Your task to perform on an android device: turn on notifications settings in the gmail app Image 0: 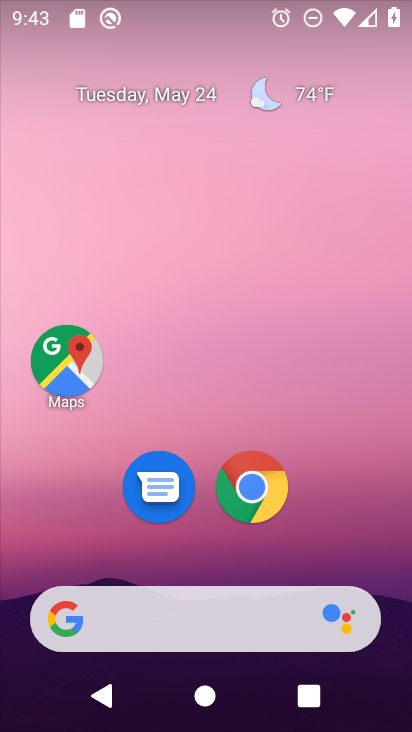
Step 0: drag from (346, 571) to (378, 13)
Your task to perform on an android device: turn on notifications settings in the gmail app Image 1: 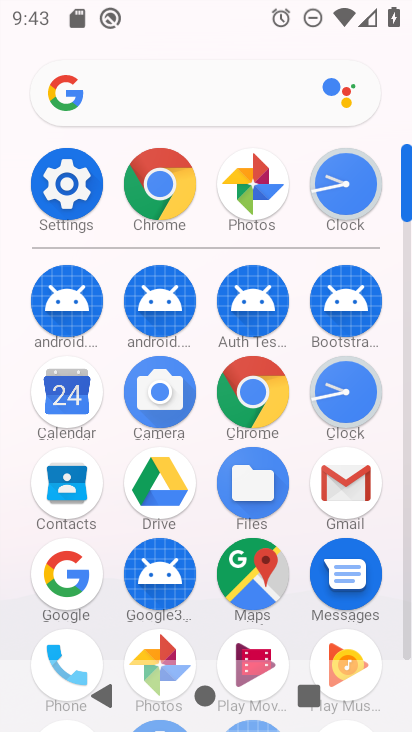
Step 1: click (347, 488)
Your task to perform on an android device: turn on notifications settings in the gmail app Image 2: 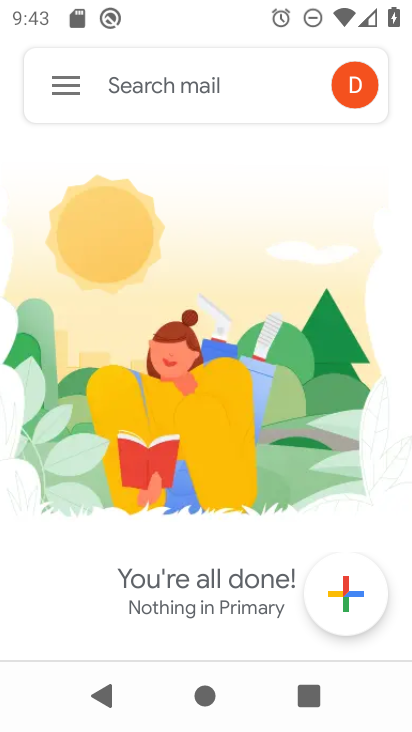
Step 2: click (55, 89)
Your task to perform on an android device: turn on notifications settings in the gmail app Image 3: 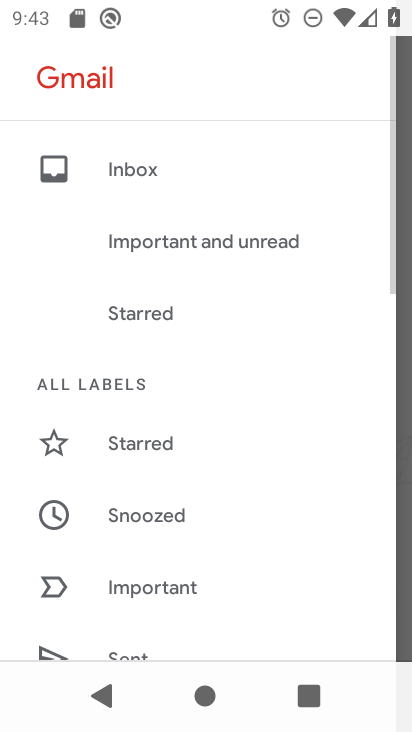
Step 3: drag from (245, 546) to (227, 162)
Your task to perform on an android device: turn on notifications settings in the gmail app Image 4: 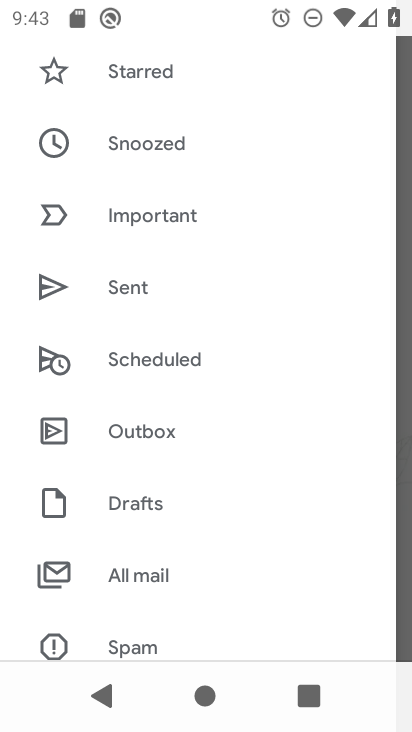
Step 4: drag from (226, 510) to (212, 230)
Your task to perform on an android device: turn on notifications settings in the gmail app Image 5: 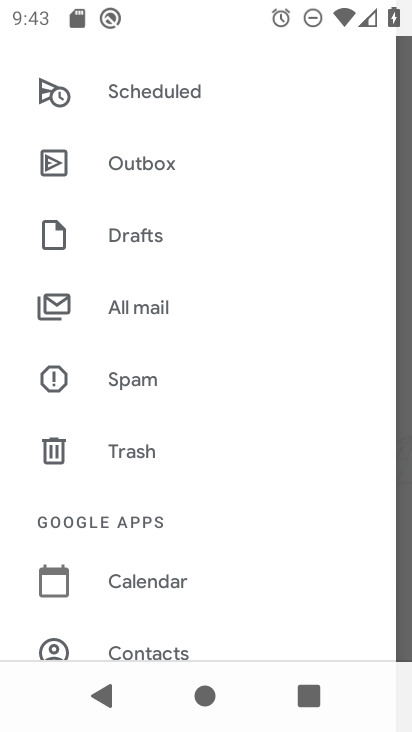
Step 5: drag from (219, 549) to (207, 238)
Your task to perform on an android device: turn on notifications settings in the gmail app Image 6: 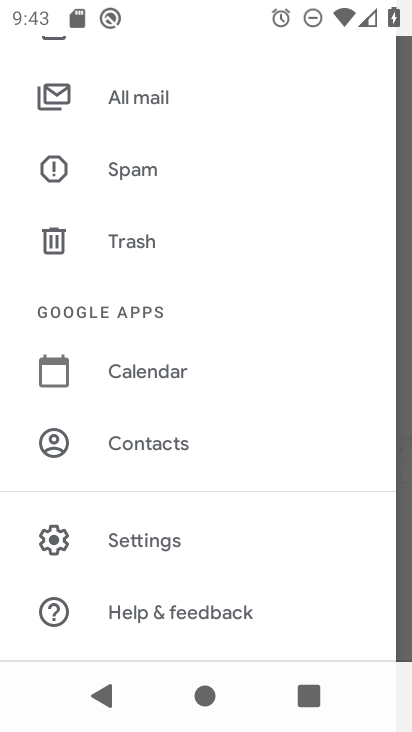
Step 6: click (130, 544)
Your task to perform on an android device: turn on notifications settings in the gmail app Image 7: 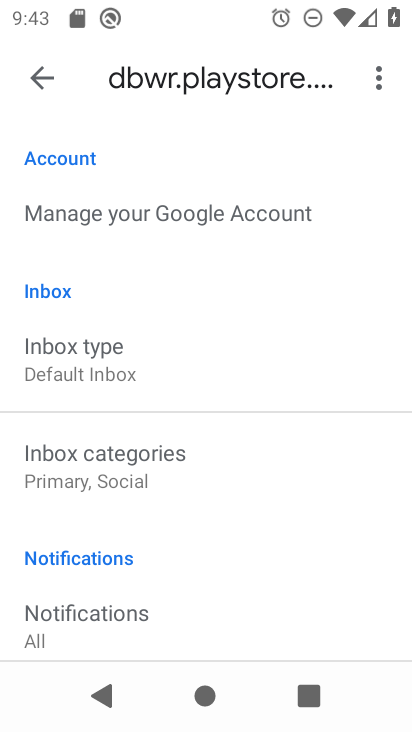
Step 7: click (42, 89)
Your task to perform on an android device: turn on notifications settings in the gmail app Image 8: 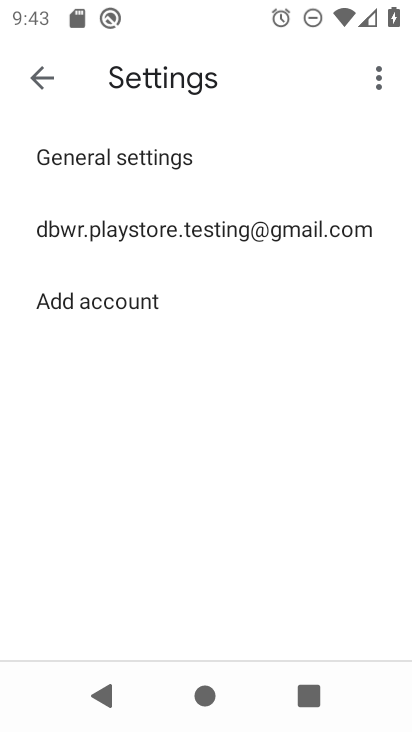
Step 8: click (87, 160)
Your task to perform on an android device: turn on notifications settings in the gmail app Image 9: 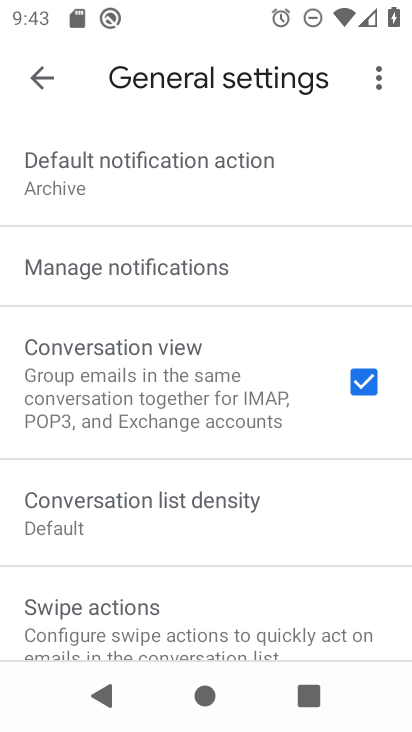
Step 9: click (100, 267)
Your task to perform on an android device: turn on notifications settings in the gmail app Image 10: 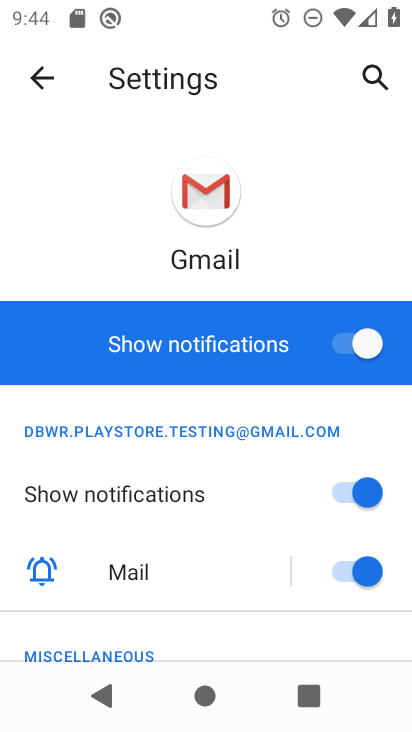
Step 10: task complete